Your task to perform on an android device: Open Reddit.com Image 0: 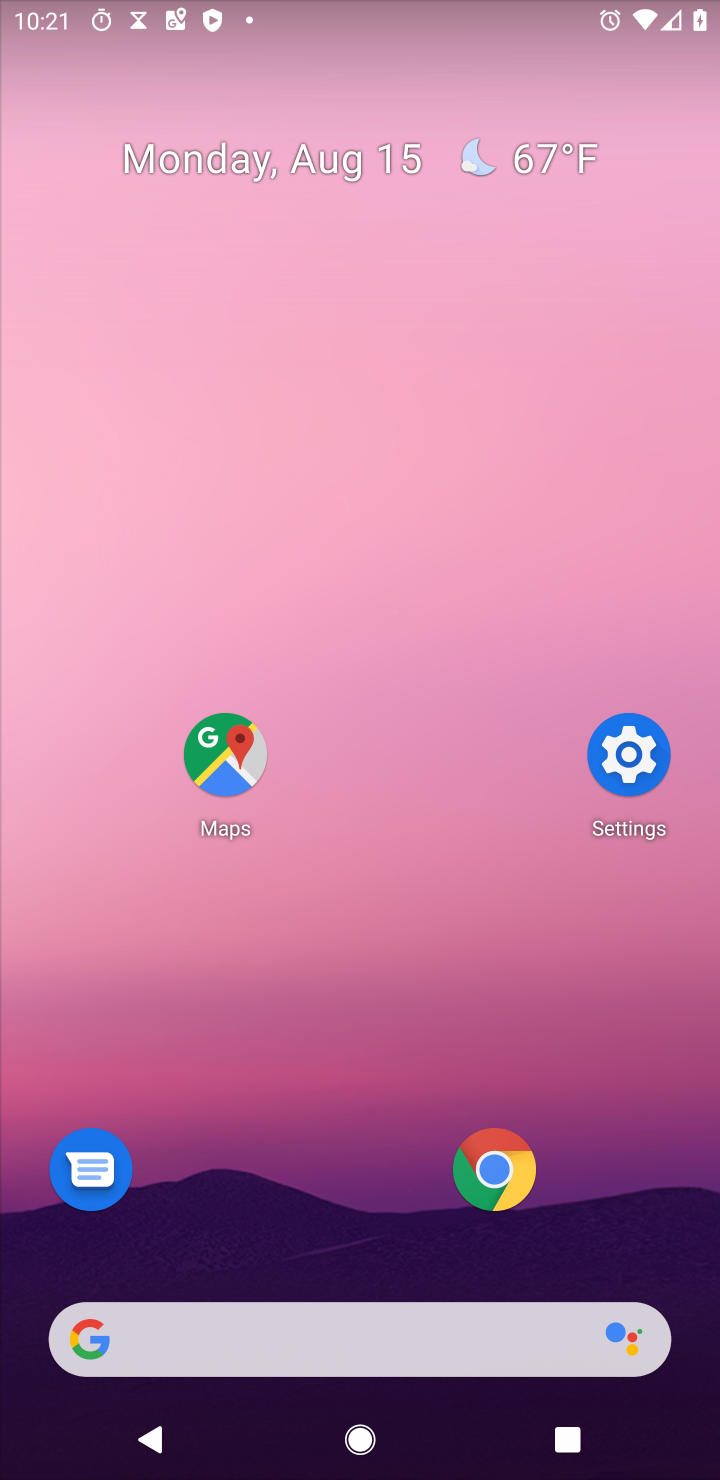
Step 0: press home button
Your task to perform on an android device: Open Reddit.com Image 1: 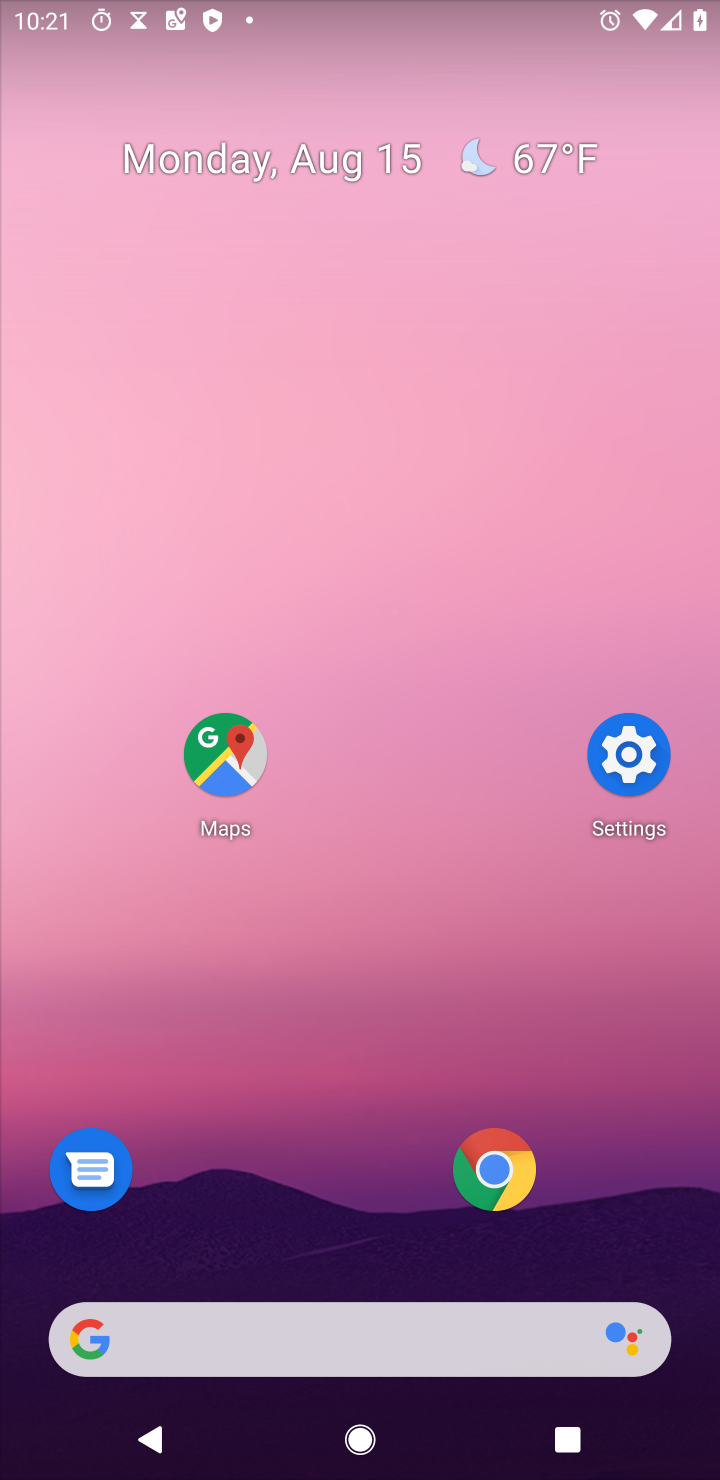
Step 1: click (502, 1165)
Your task to perform on an android device: Open Reddit.com Image 2: 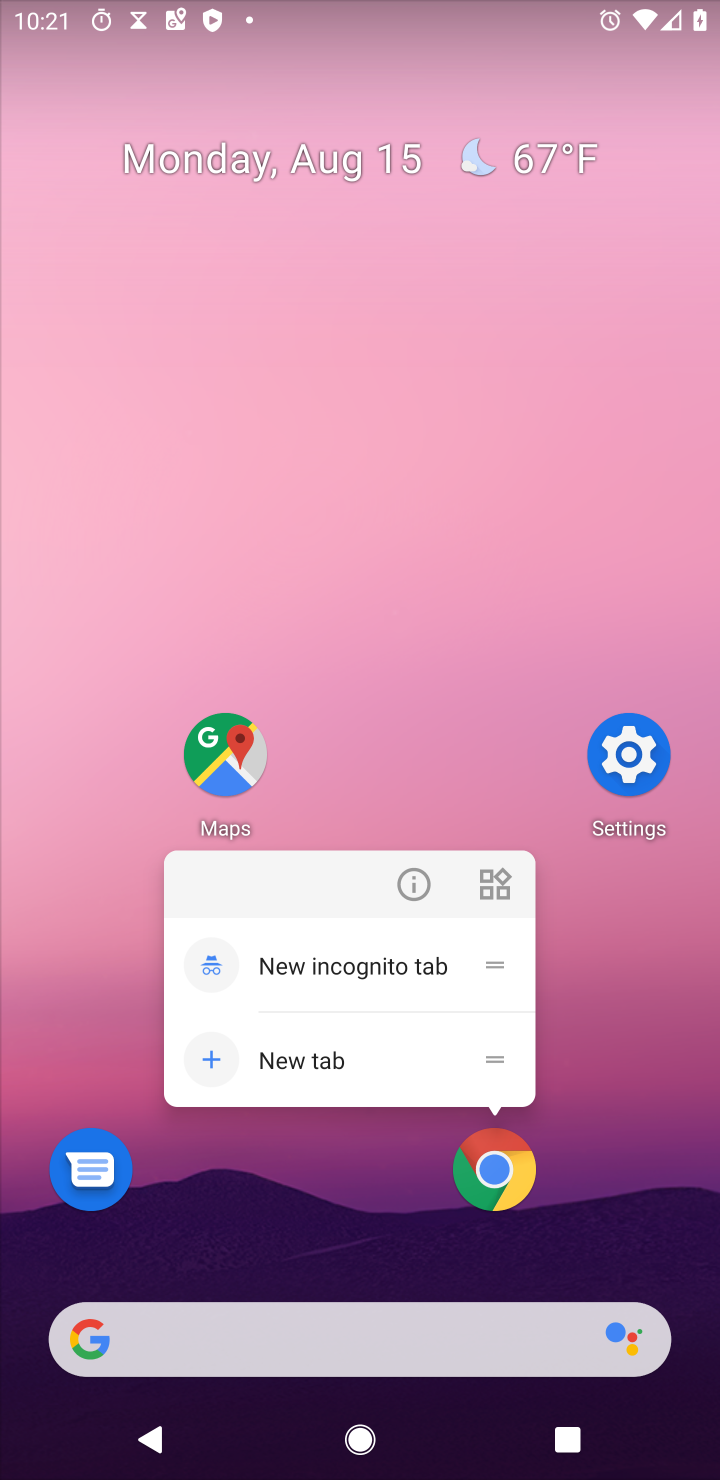
Step 2: click (502, 1172)
Your task to perform on an android device: Open Reddit.com Image 3: 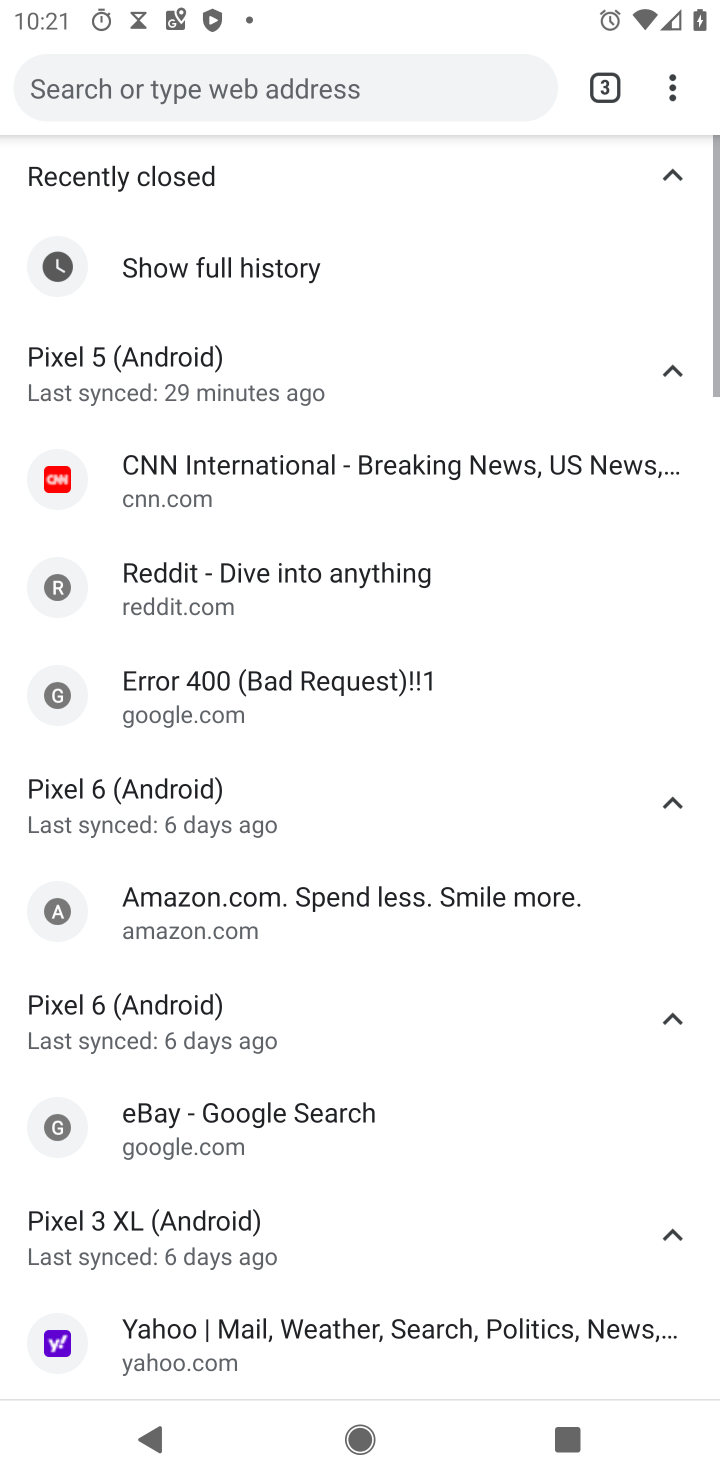
Step 3: drag from (676, 94) to (463, 188)
Your task to perform on an android device: Open Reddit.com Image 4: 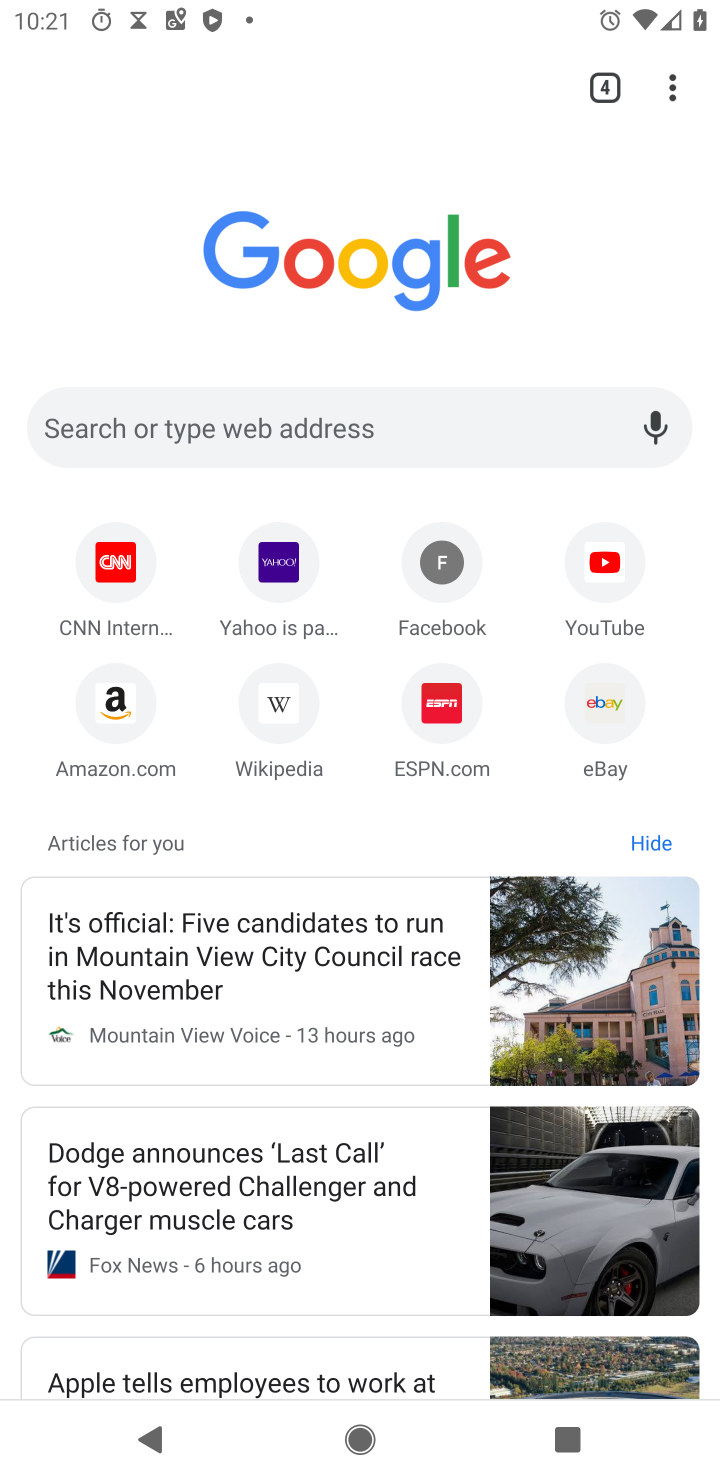
Step 4: click (242, 424)
Your task to perform on an android device: Open Reddit.com Image 5: 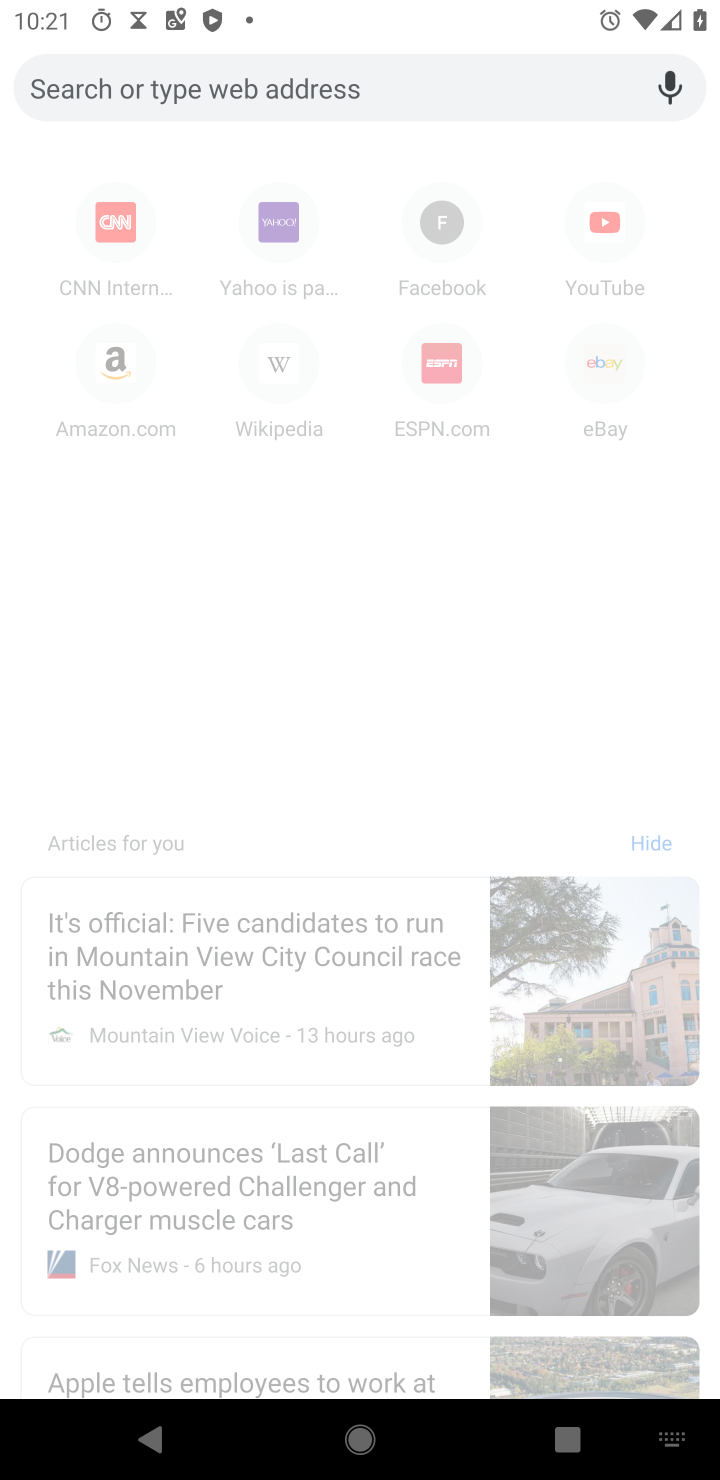
Step 5: type " Reddit.com"
Your task to perform on an android device: Open Reddit.com Image 6: 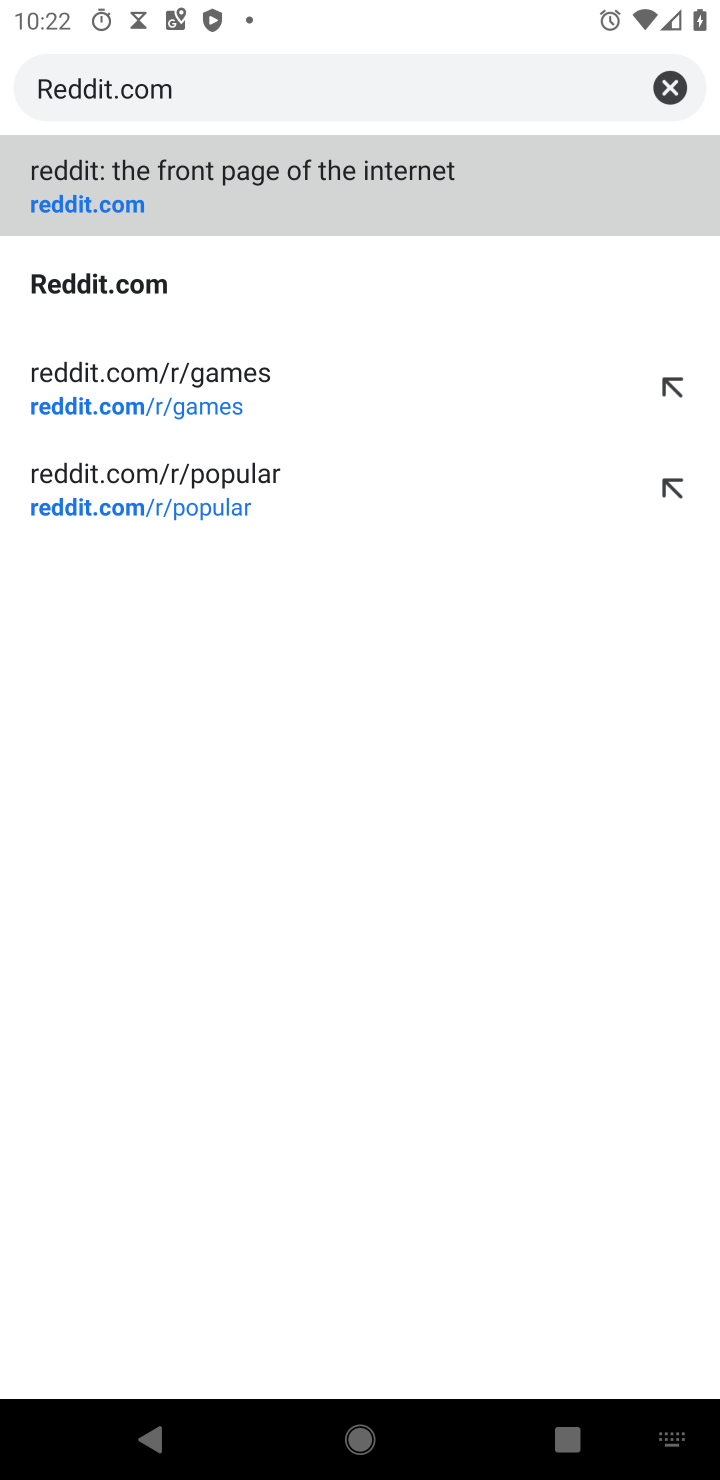
Step 6: click (284, 177)
Your task to perform on an android device: Open Reddit.com Image 7: 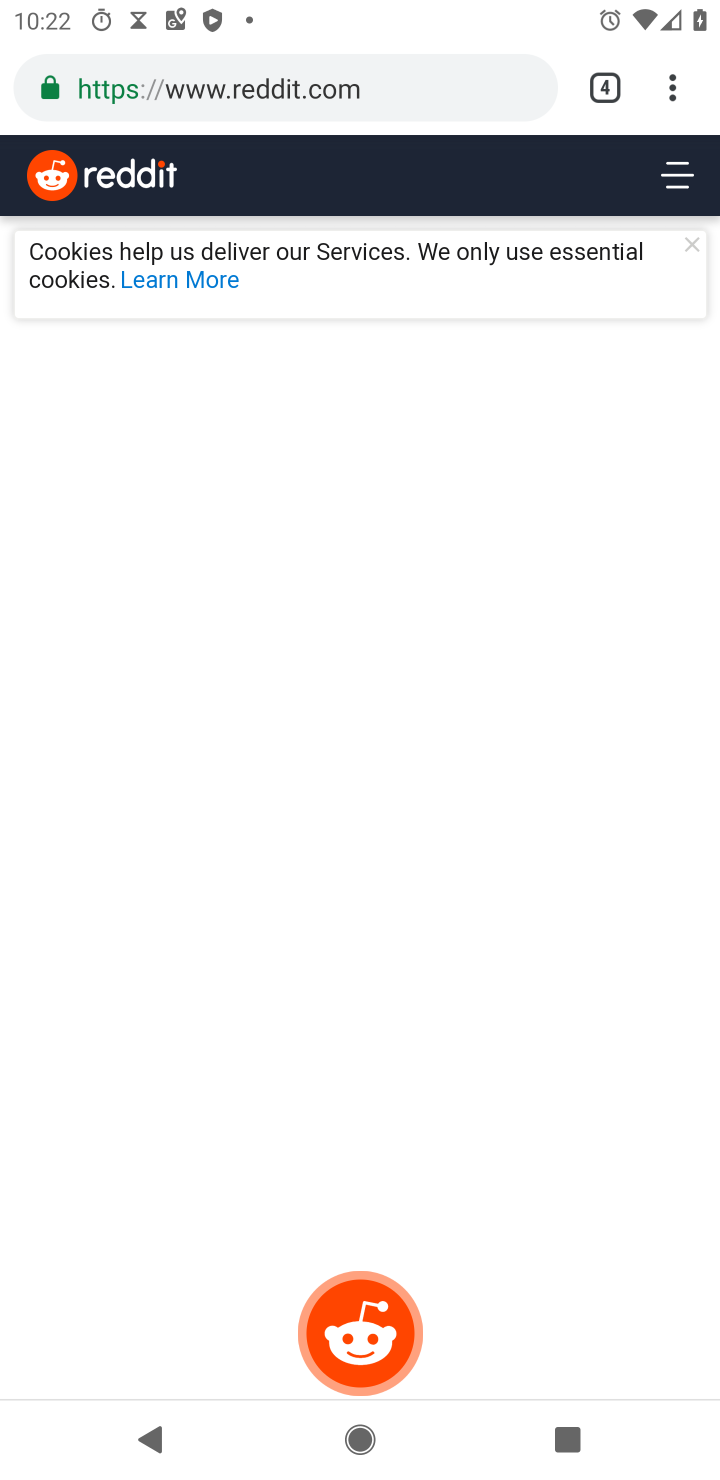
Step 7: task complete